Your task to perform on an android device: find photos in the google photos app Image 0: 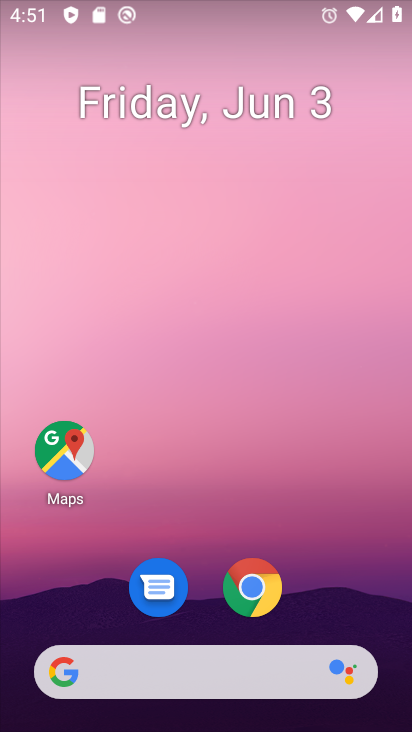
Step 0: drag from (146, 725) to (203, 91)
Your task to perform on an android device: find photos in the google photos app Image 1: 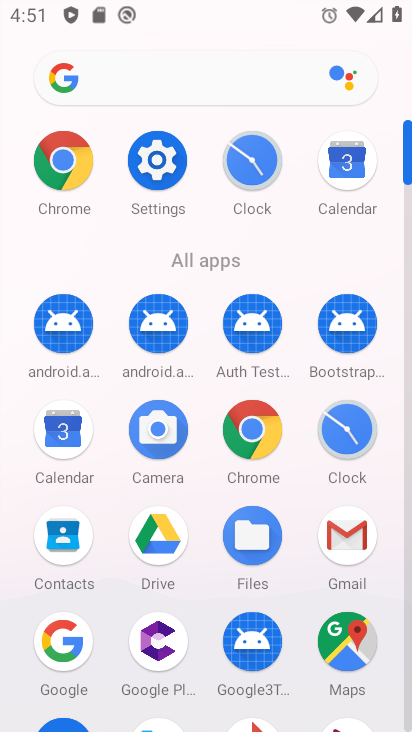
Step 1: drag from (114, 686) to (155, 211)
Your task to perform on an android device: find photos in the google photos app Image 2: 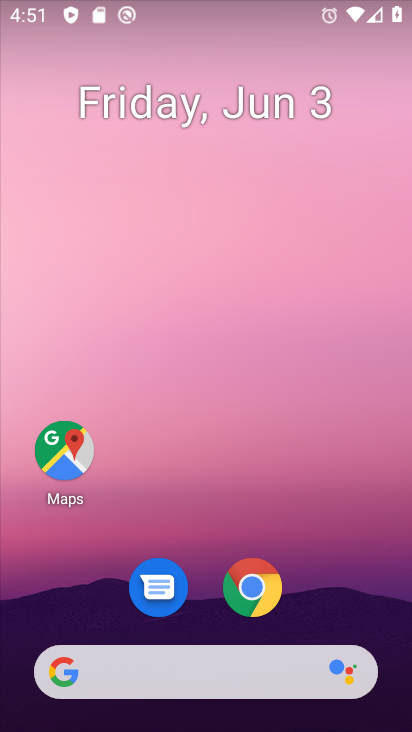
Step 2: drag from (120, 731) to (156, 3)
Your task to perform on an android device: find photos in the google photos app Image 3: 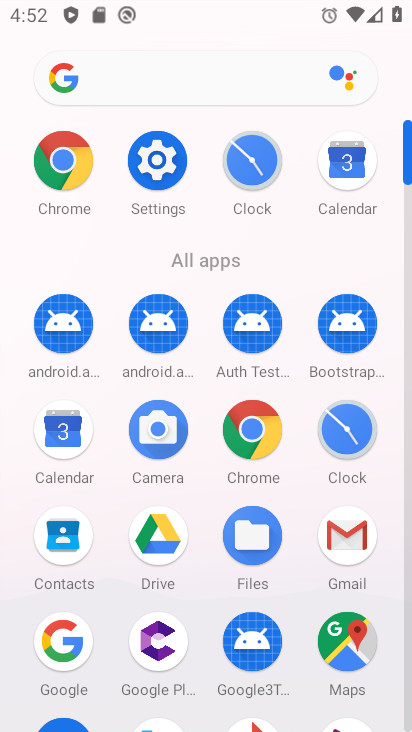
Step 3: drag from (207, 690) to (211, 185)
Your task to perform on an android device: find photos in the google photos app Image 4: 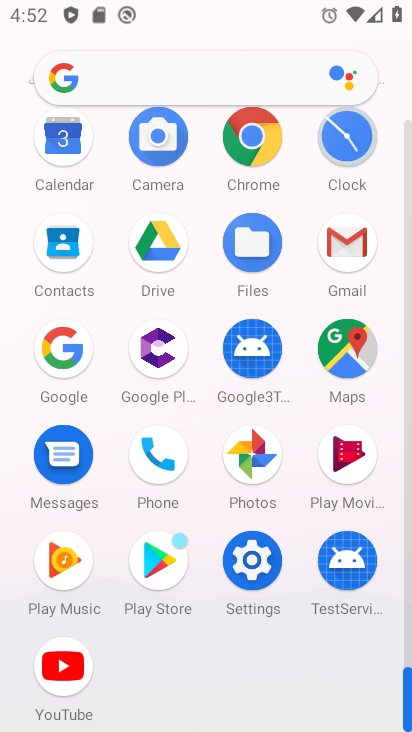
Step 4: click (259, 448)
Your task to perform on an android device: find photos in the google photos app Image 5: 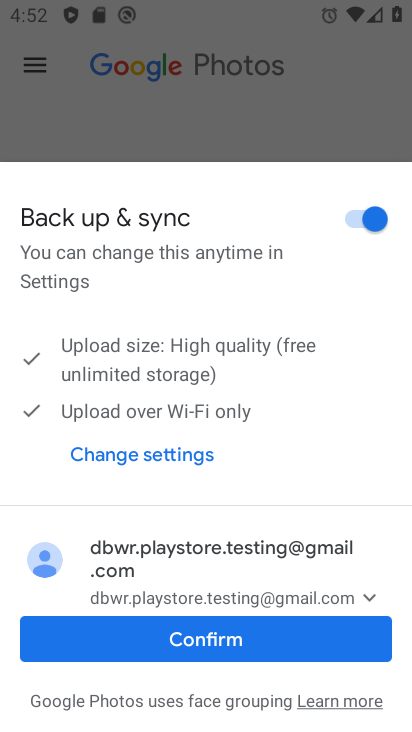
Step 5: click (226, 644)
Your task to perform on an android device: find photos in the google photos app Image 6: 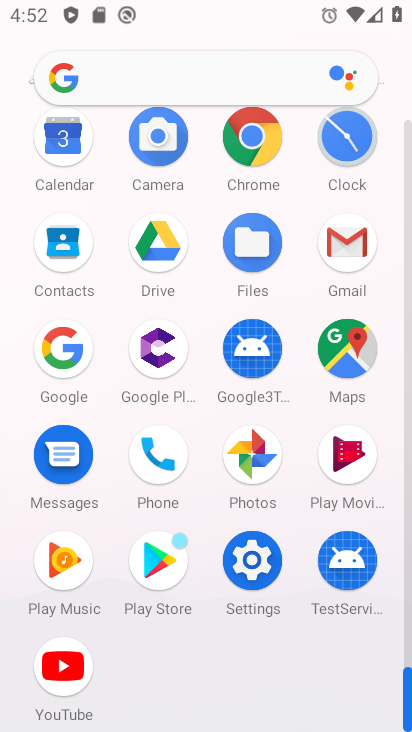
Step 6: click (256, 451)
Your task to perform on an android device: find photos in the google photos app Image 7: 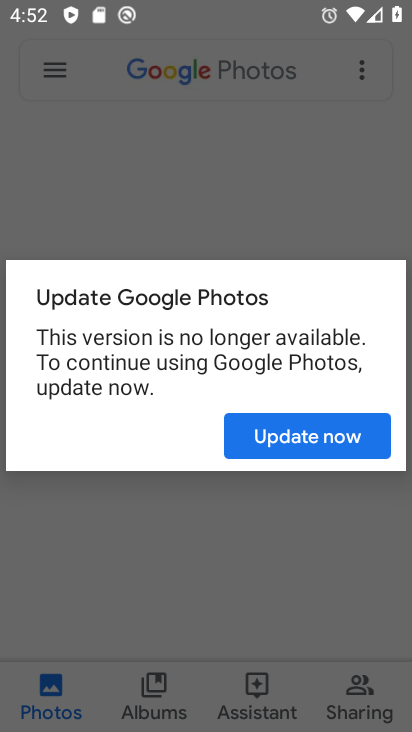
Step 7: click (285, 437)
Your task to perform on an android device: find photos in the google photos app Image 8: 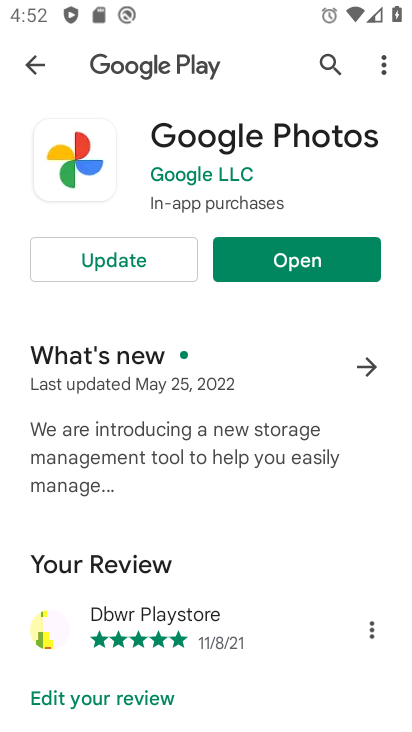
Step 8: click (164, 268)
Your task to perform on an android device: find photos in the google photos app Image 9: 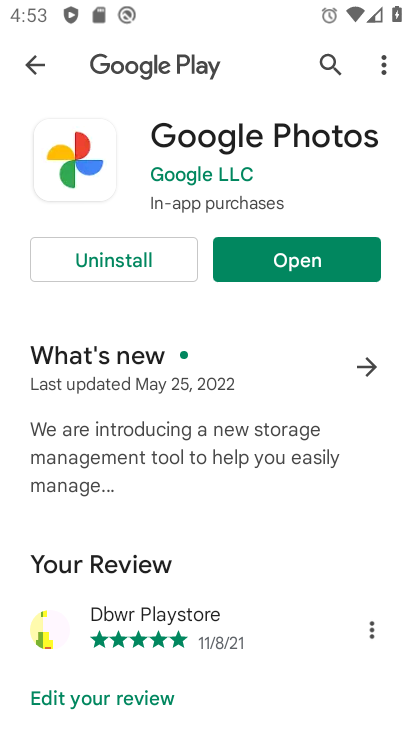
Step 9: click (327, 265)
Your task to perform on an android device: find photos in the google photos app Image 10: 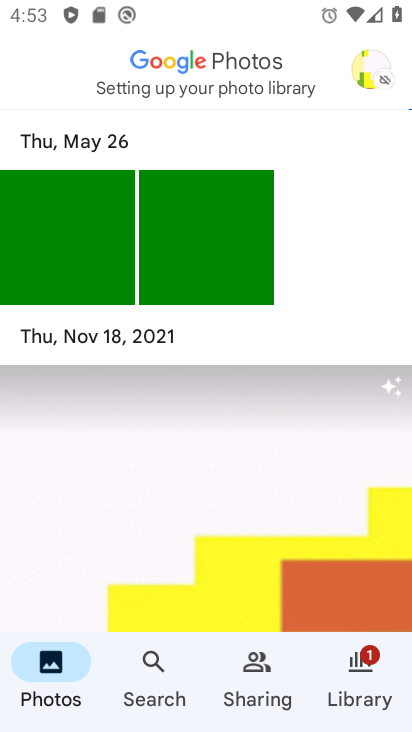
Step 10: click (207, 240)
Your task to perform on an android device: find photos in the google photos app Image 11: 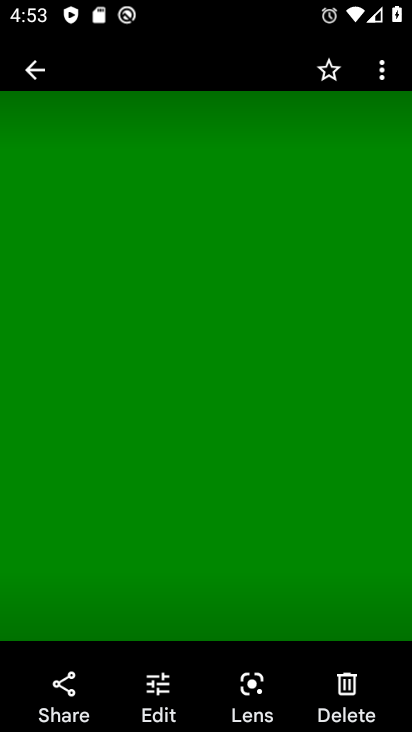
Step 11: task complete